Your task to perform on an android device: turn off wifi Image 0: 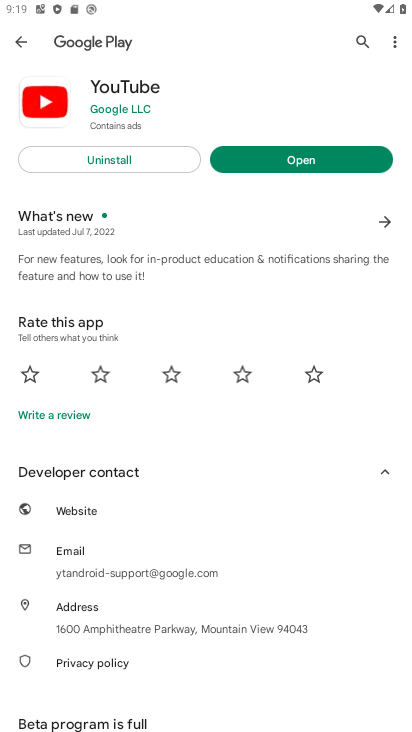
Step 0: press home button
Your task to perform on an android device: turn off wifi Image 1: 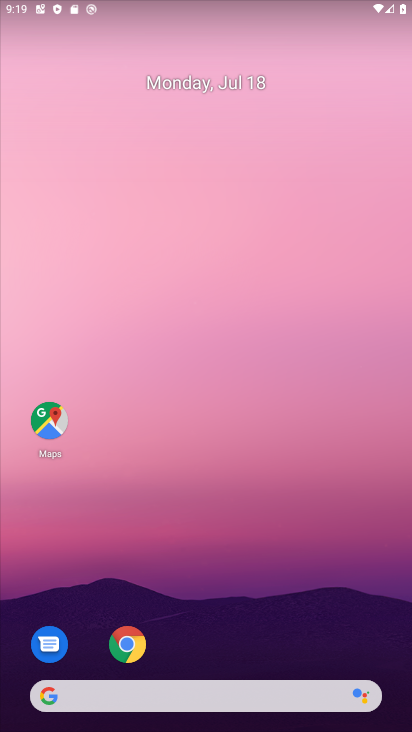
Step 1: drag from (239, 666) to (146, 100)
Your task to perform on an android device: turn off wifi Image 2: 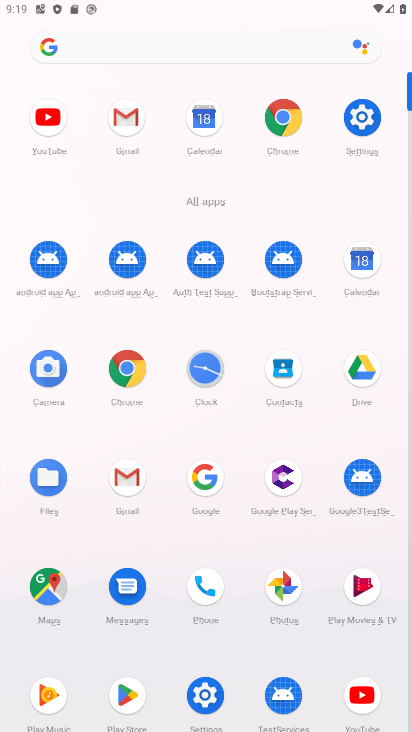
Step 2: click (347, 121)
Your task to perform on an android device: turn off wifi Image 3: 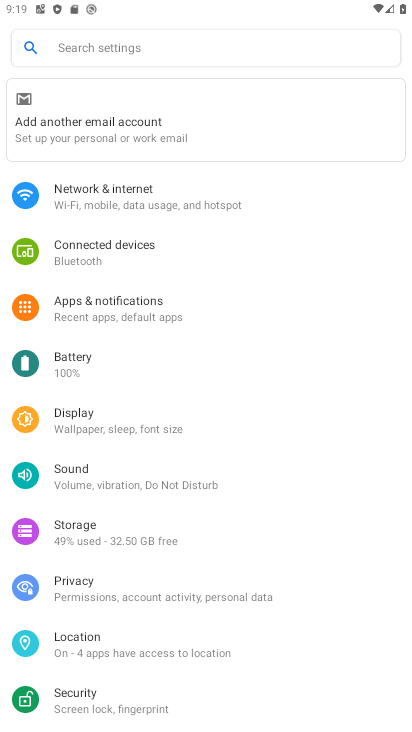
Step 3: click (104, 190)
Your task to perform on an android device: turn off wifi Image 4: 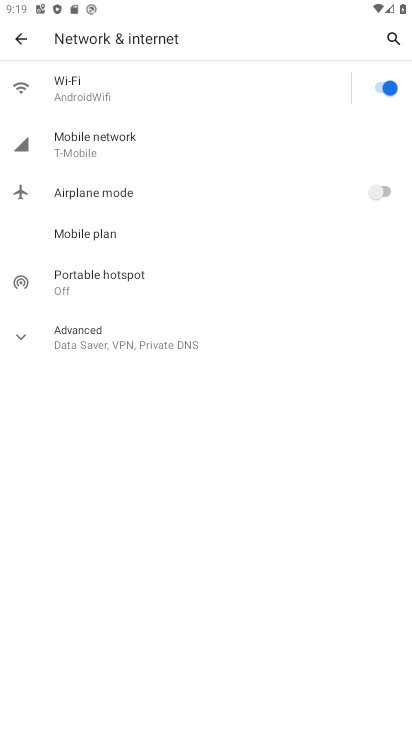
Step 4: click (389, 86)
Your task to perform on an android device: turn off wifi Image 5: 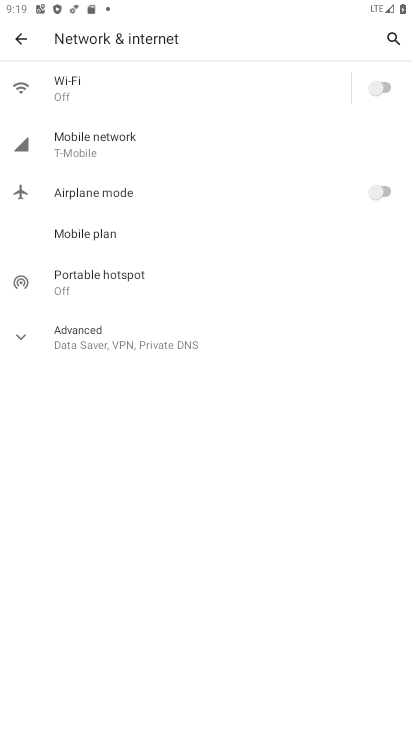
Step 5: task complete